Your task to perform on an android device: Open the map Image 0: 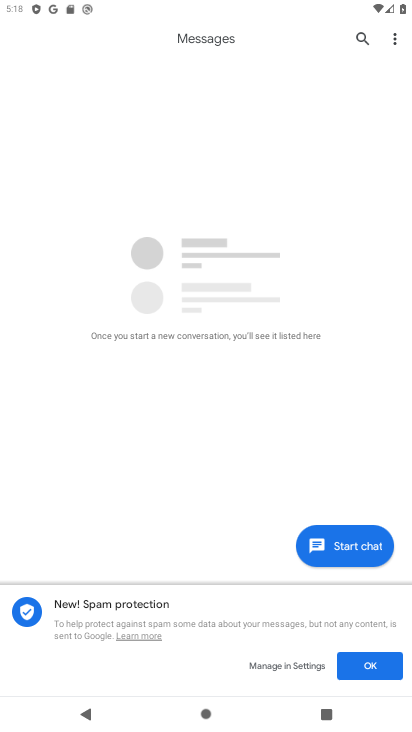
Step 0: press home button
Your task to perform on an android device: Open the map Image 1: 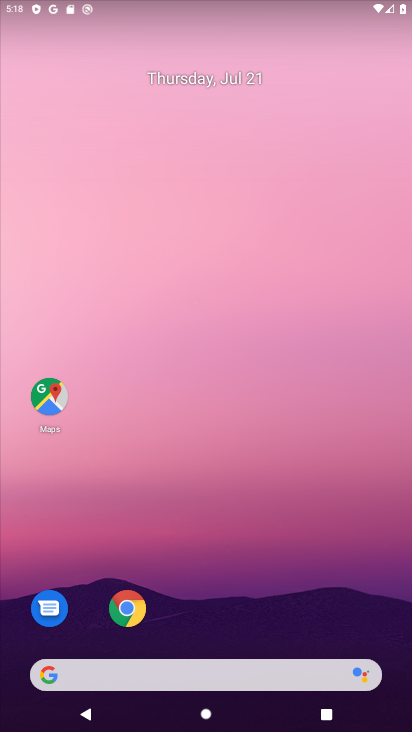
Step 1: click (45, 395)
Your task to perform on an android device: Open the map Image 2: 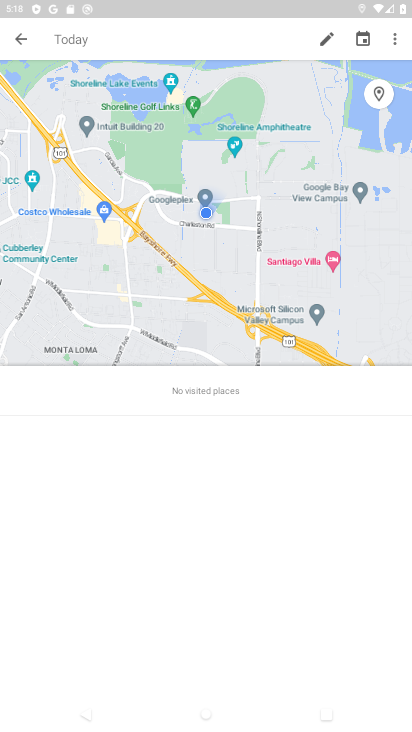
Step 2: click (16, 35)
Your task to perform on an android device: Open the map Image 3: 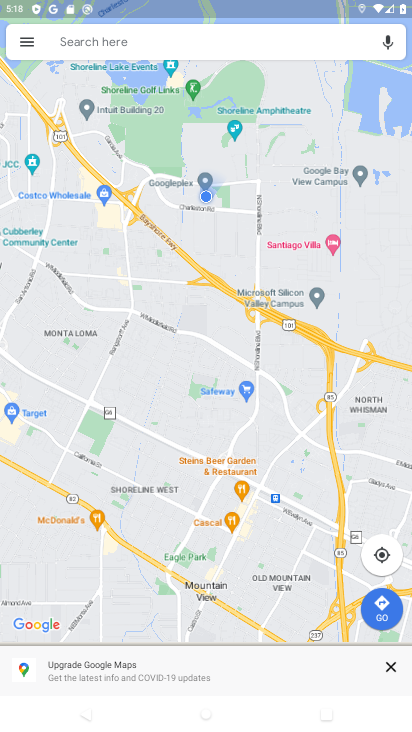
Step 3: task complete